Your task to perform on an android device: check android version Image 0: 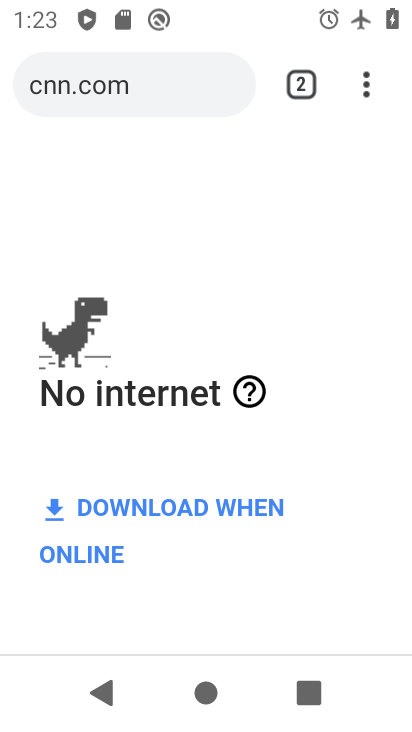
Step 0: press home button
Your task to perform on an android device: check android version Image 1: 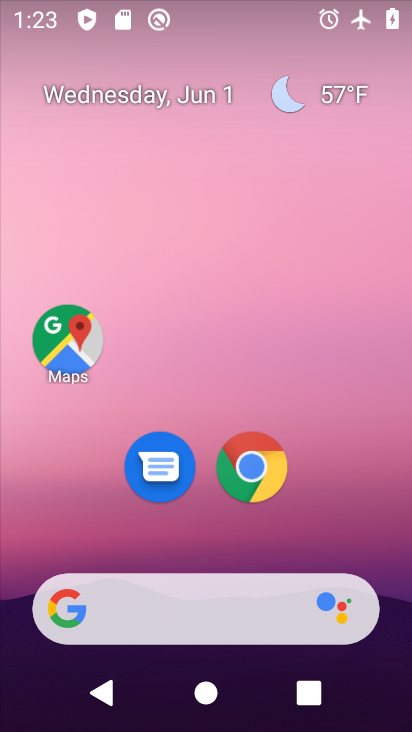
Step 1: drag from (365, 523) to (386, 162)
Your task to perform on an android device: check android version Image 2: 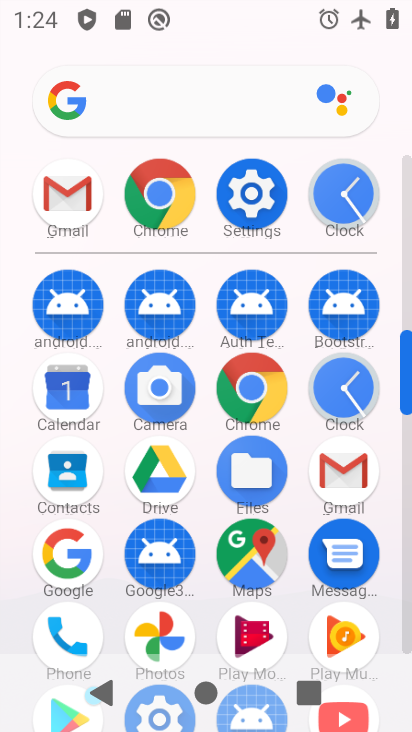
Step 2: click (258, 218)
Your task to perform on an android device: check android version Image 3: 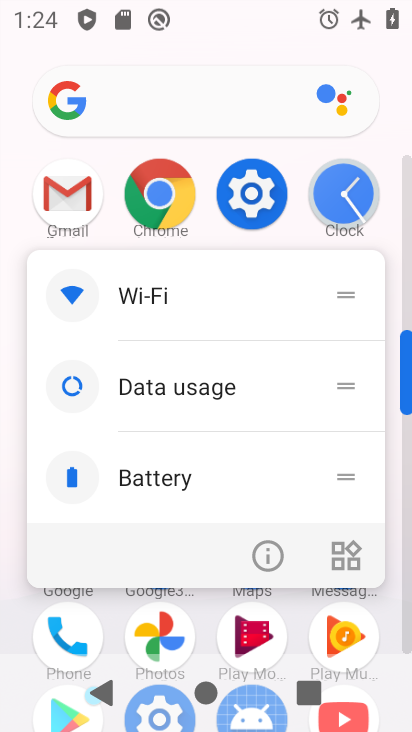
Step 3: click (258, 218)
Your task to perform on an android device: check android version Image 4: 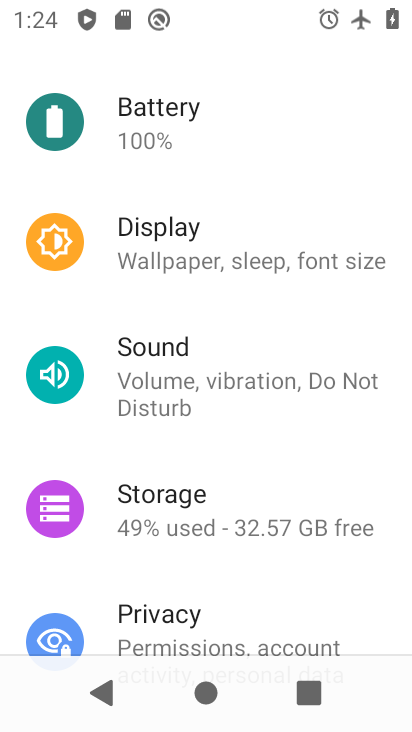
Step 4: drag from (368, 589) to (380, 312)
Your task to perform on an android device: check android version Image 5: 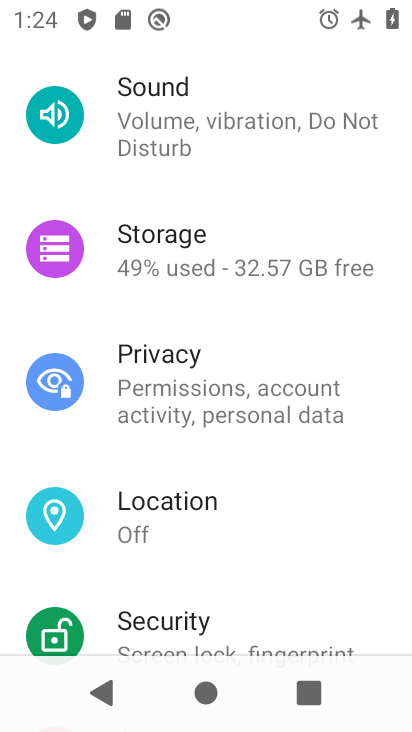
Step 5: drag from (350, 548) to (357, 357)
Your task to perform on an android device: check android version Image 6: 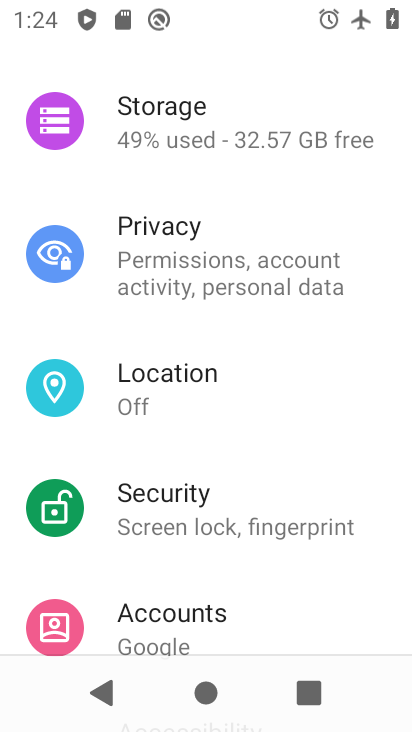
Step 6: drag from (356, 459) to (357, 420)
Your task to perform on an android device: check android version Image 7: 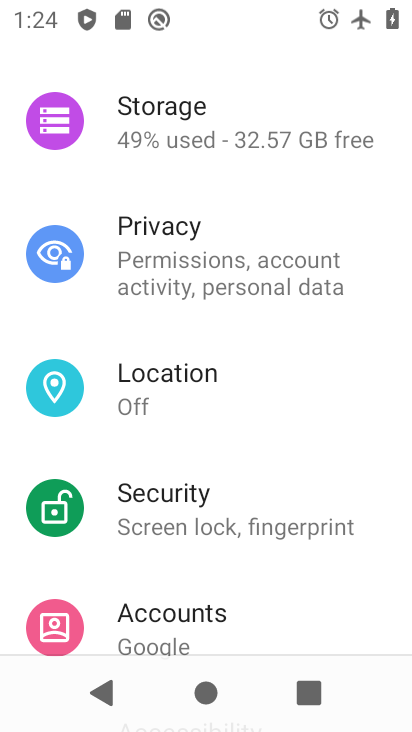
Step 7: drag from (353, 580) to (355, 389)
Your task to perform on an android device: check android version Image 8: 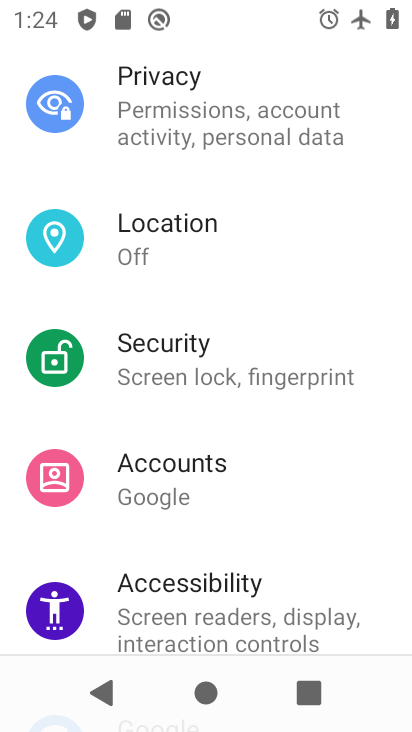
Step 8: drag from (341, 559) to (347, 326)
Your task to perform on an android device: check android version Image 9: 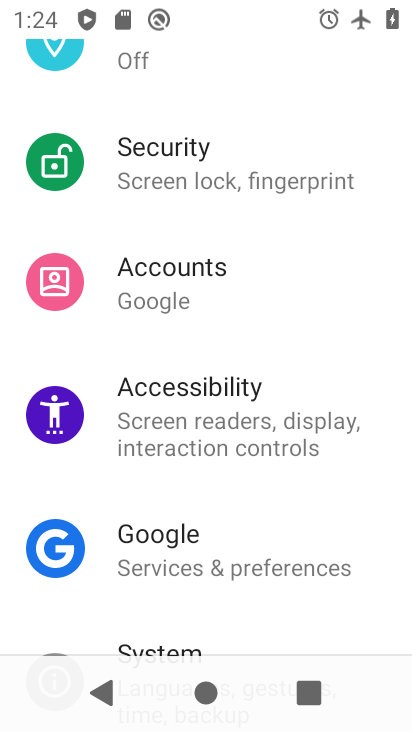
Step 9: drag from (347, 500) to (368, 239)
Your task to perform on an android device: check android version Image 10: 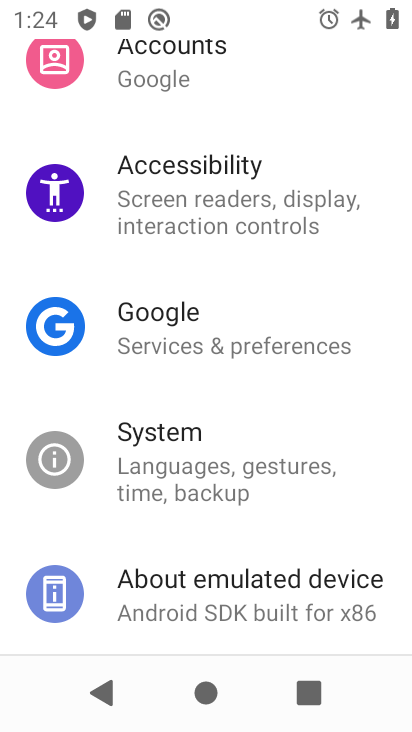
Step 10: drag from (349, 524) to (357, 365)
Your task to perform on an android device: check android version Image 11: 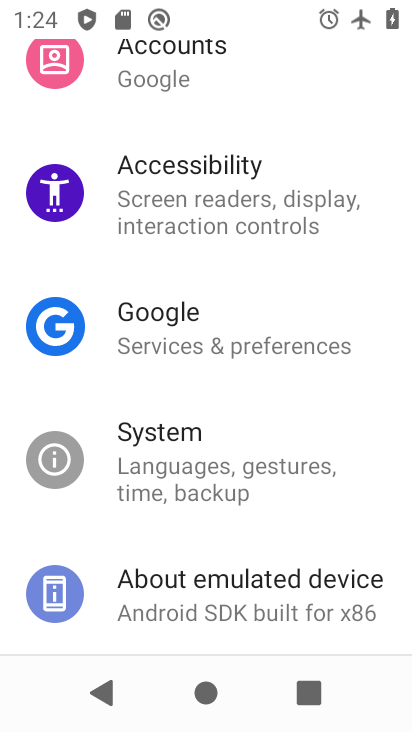
Step 11: click (227, 462)
Your task to perform on an android device: check android version Image 12: 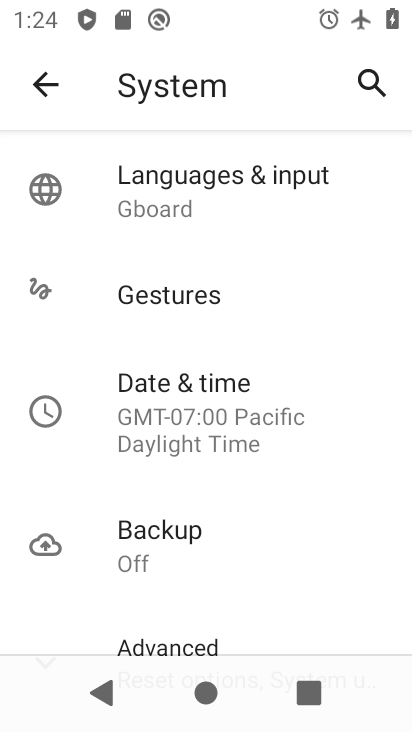
Step 12: drag from (315, 515) to (343, 332)
Your task to perform on an android device: check android version Image 13: 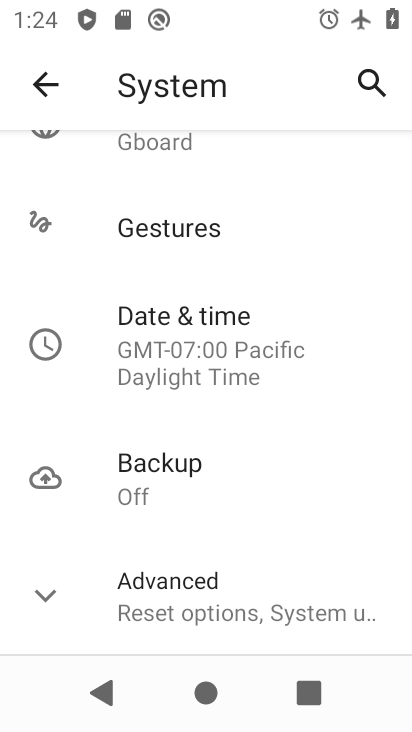
Step 13: click (271, 625)
Your task to perform on an android device: check android version Image 14: 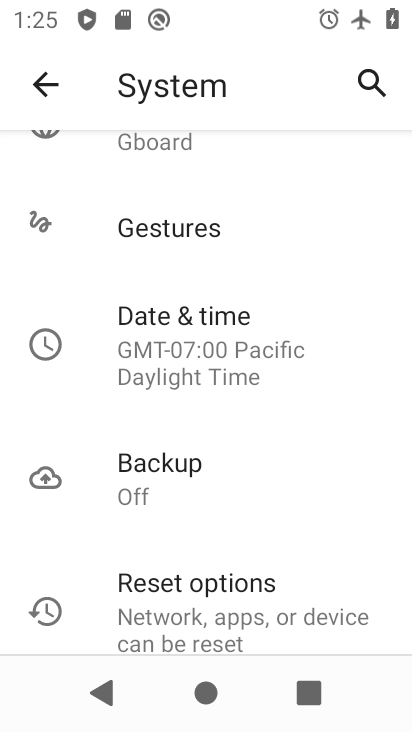
Step 14: drag from (328, 492) to (368, 292)
Your task to perform on an android device: check android version Image 15: 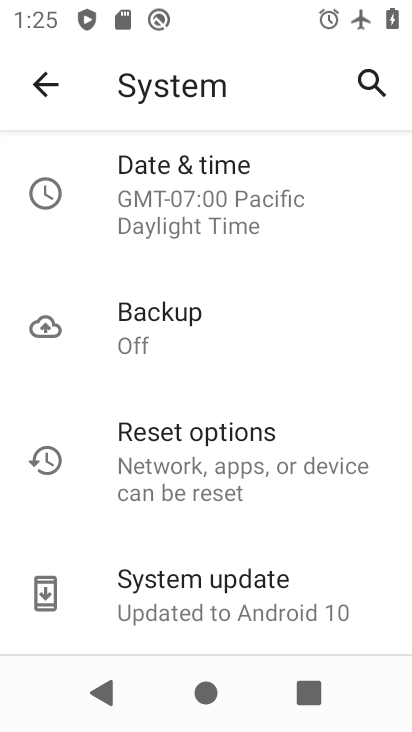
Step 15: click (302, 599)
Your task to perform on an android device: check android version Image 16: 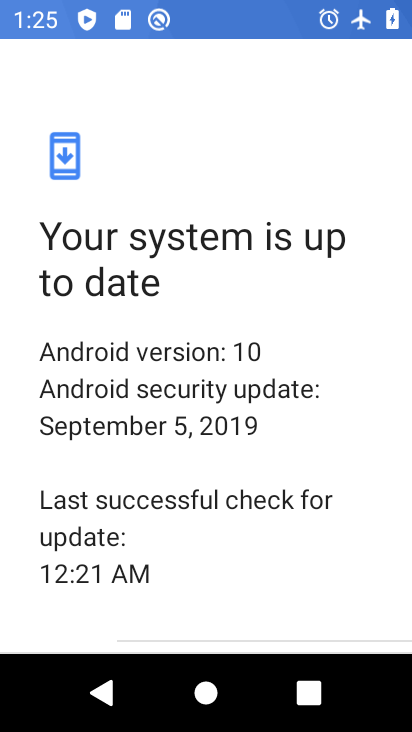
Step 16: task complete